Your task to perform on an android device: Play the last video I watched on Youtube Image 0: 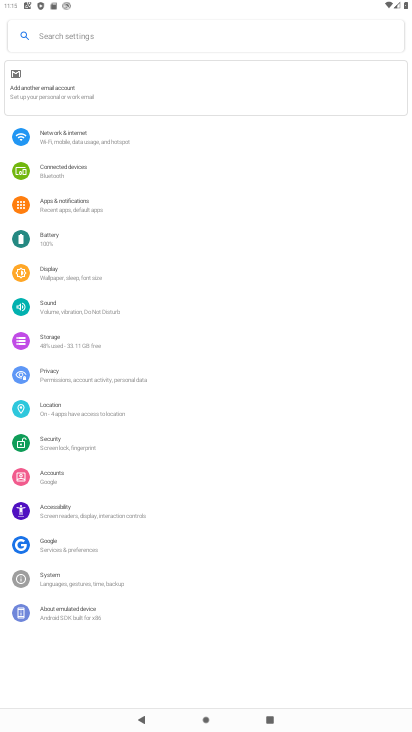
Step 0: press home button
Your task to perform on an android device: Play the last video I watched on Youtube Image 1: 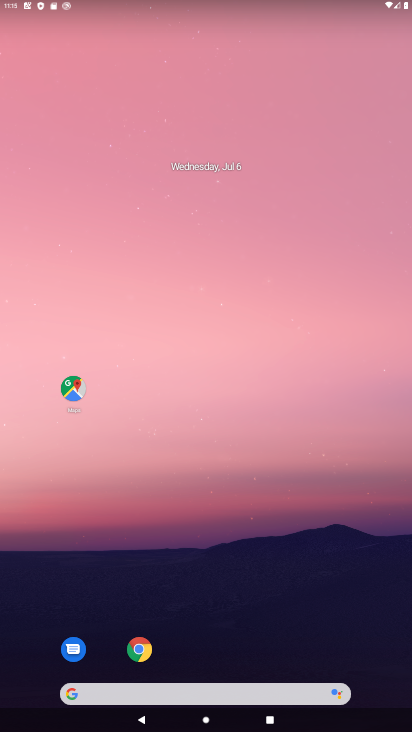
Step 1: drag from (231, 622) to (240, 27)
Your task to perform on an android device: Play the last video I watched on Youtube Image 2: 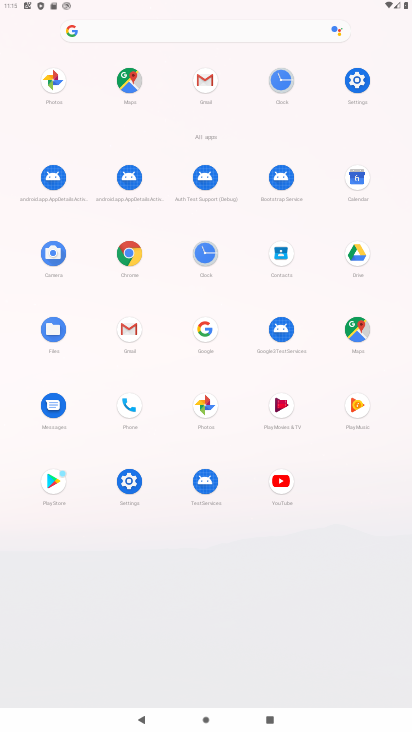
Step 2: click (287, 490)
Your task to perform on an android device: Play the last video I watched on Youtube Image 3: 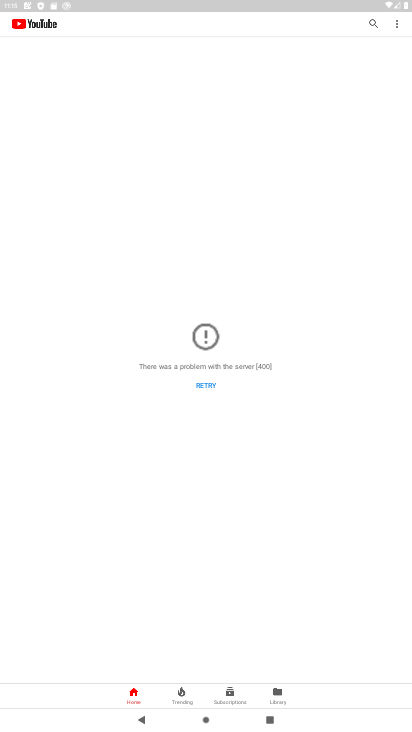
Step 3: click (273, 692)
Your task to perform on an android device: Play the last video I watched on Youtube Image 4: 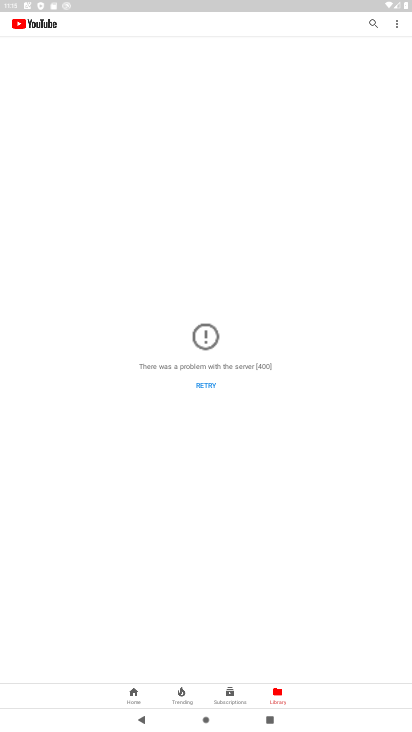
Step 4: click (206, 380)
Your task to perform on an android device: Play the last video I watched on Youtube Image 5: 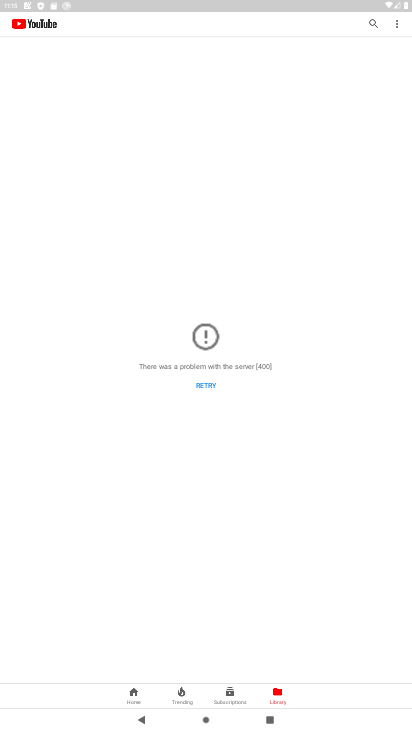
Step 5: click (206, 380)
Your task to perform on an android device: Play the last video I watched on Youtube Image 6: 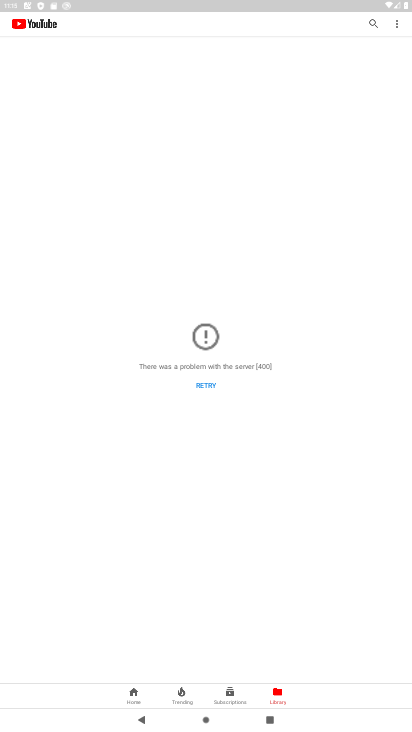
Step 6: click (203, 380)
Your task to perform on an android device: Play the last video I watched on Youtube Image 7: 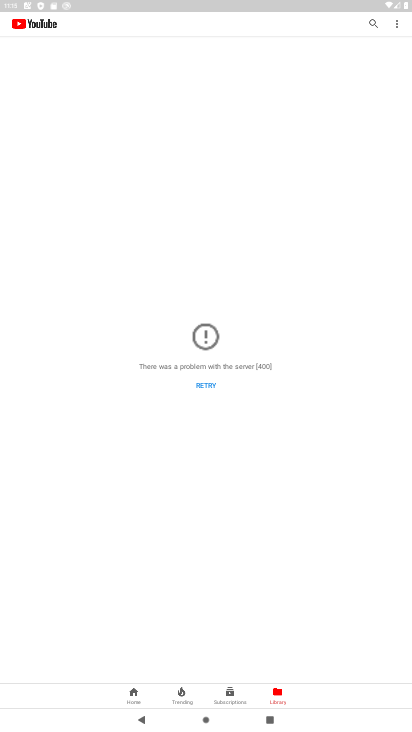
Step 7: task complete